Your task to perform on an android device: Do I have any events this weekend? Image 0: 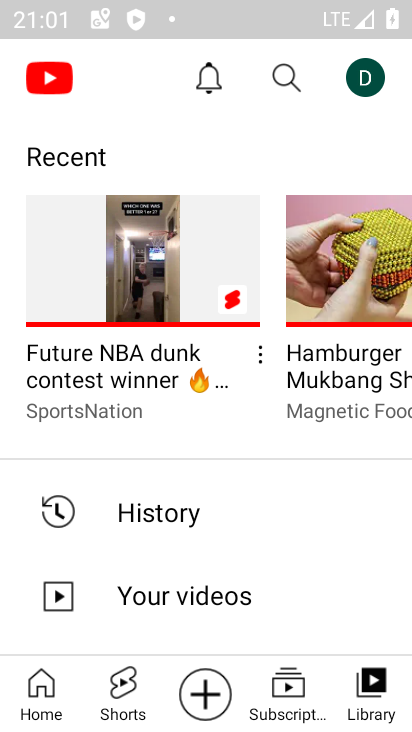
Step 0: press back button
Your task to perform on an android device: Do I have any events this weekend? Image 1: 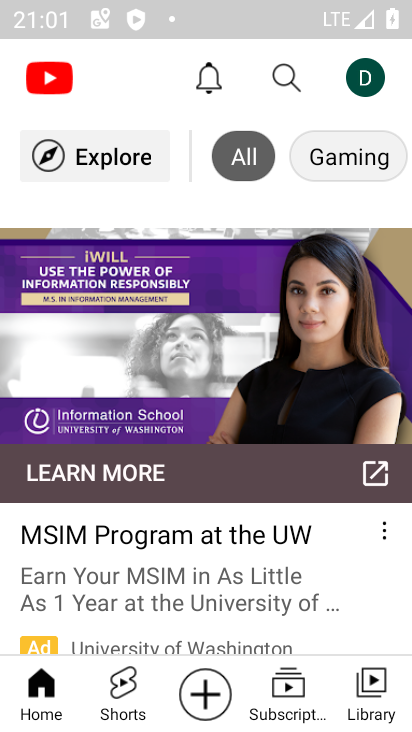
Step 1: task complete